Your task to perform on an android device: Open the contacts Image 0: 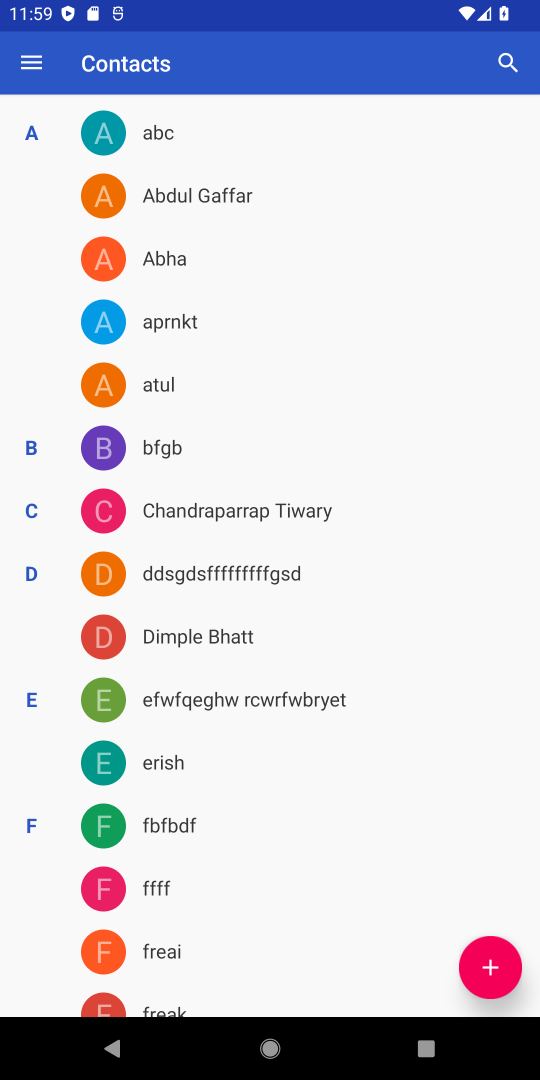
Step 0: press home button
Your task to perform on an android device: Open the contacts Image 1: 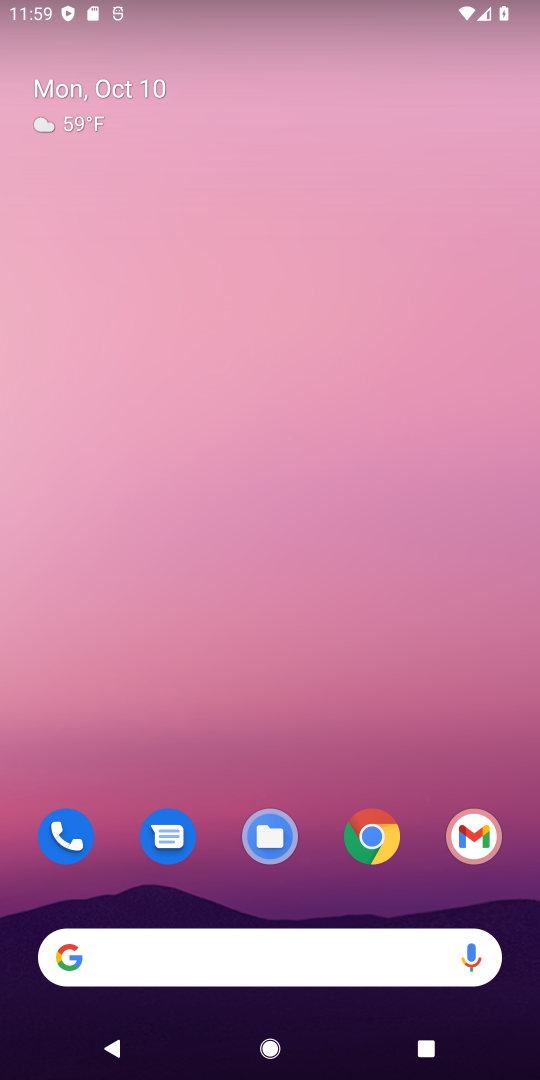
Step 1: drag from (322, 773) to (335, 302)
Your task to perform on an android device: Open the contacts Image 2: 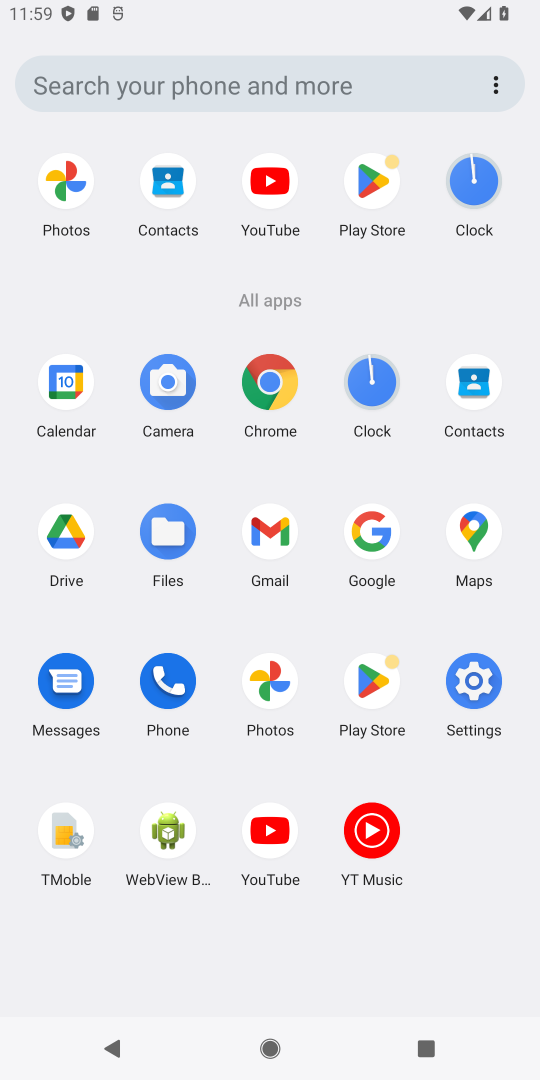
Step 2: click (480, 378)
Your task to perform on an android device: Open the contacts Image 3: 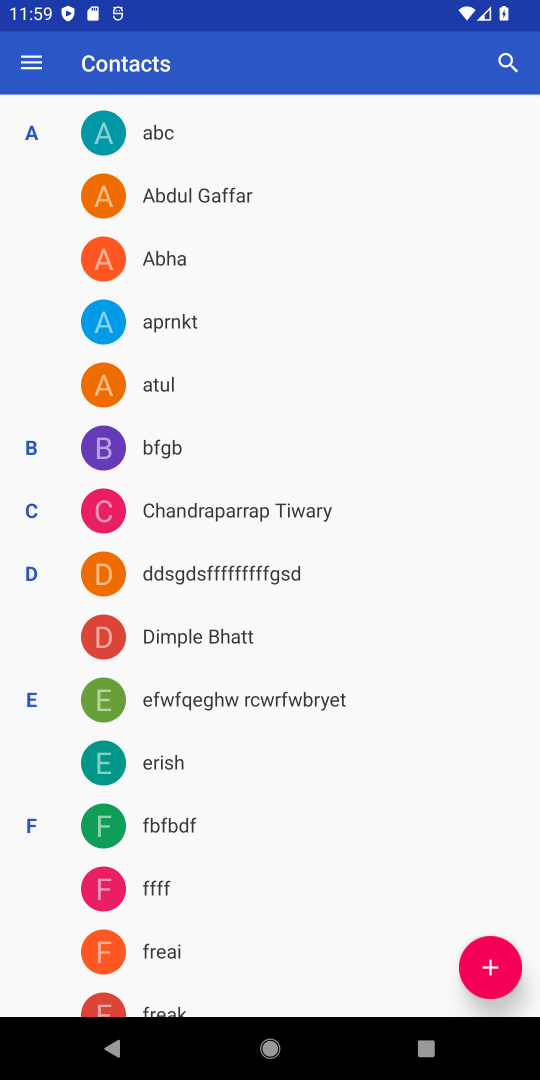
Step 3: task complete